Your task to perform on an android device: empty trash in google photos Image 0: 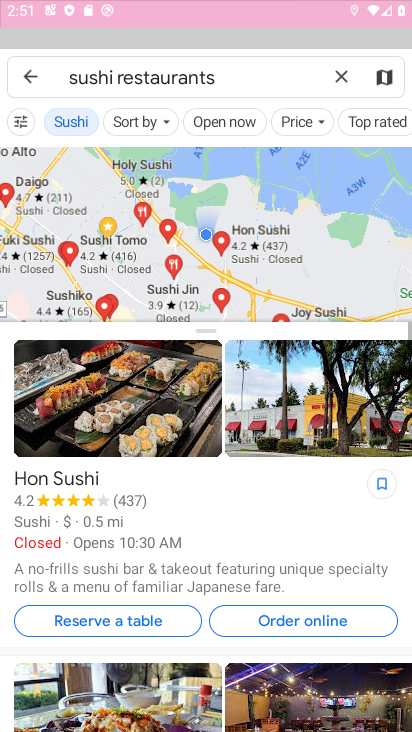
Step 0: click (217, 358)
Your task to perform on an android device: empty trash in google photos Image 1: 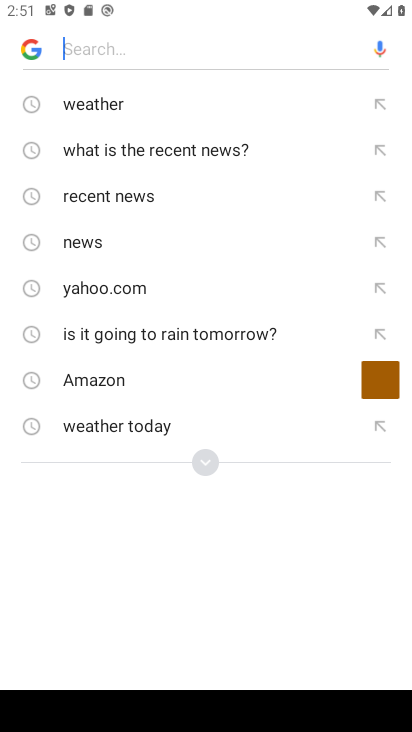
Step 1: press home button
Your task to perform on an android device: empty trash in google photos Image 2: 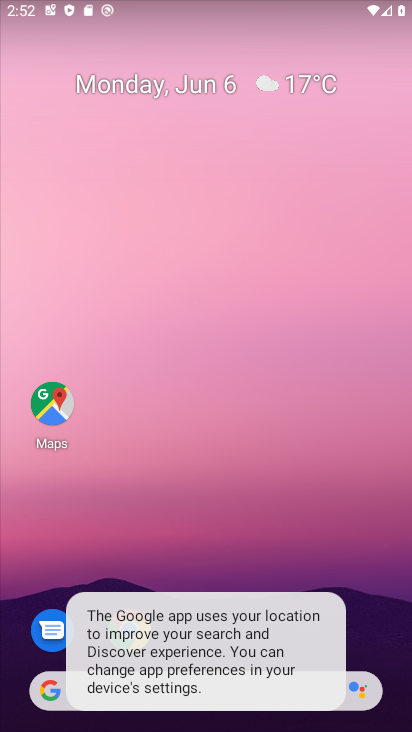
Step 2: drag from (262, 548) to (262, 244)
Your task to perform on an android device: empty trash in google photos Image 3: 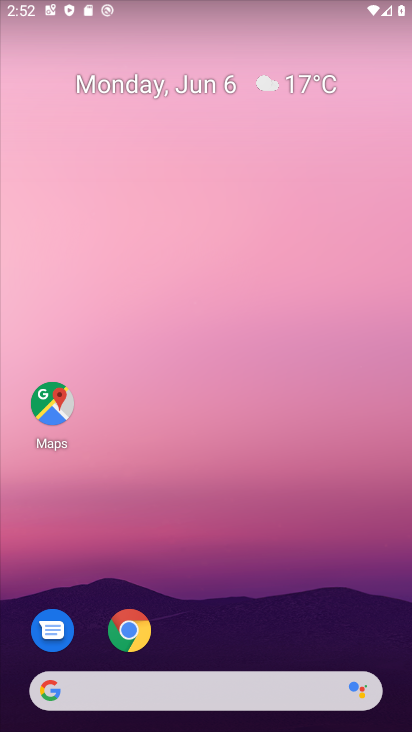
Step 3: drag from (227, 634) to (238, 261)
Your task to perform on an android device: empty trash in google photos Image 4: 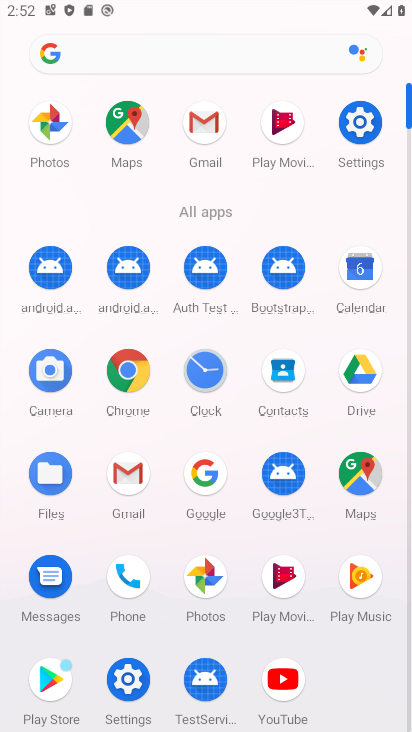
Step 4: click (194, 564)
Your task to perform on an android device: empty trash in google photos Image 5: 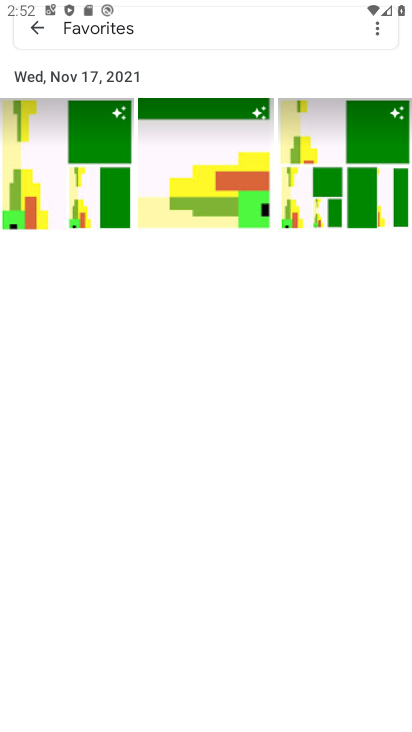
Step 5: click (42, 25)
Your task to perform on an android device: empty trash in google photos Image 6: 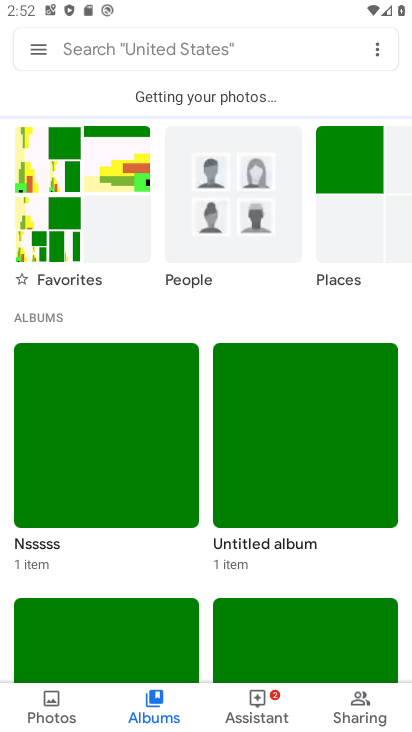
Step 6: click (36, 51)
Your task to perform on an android device: empty trash in google photos Image 7: 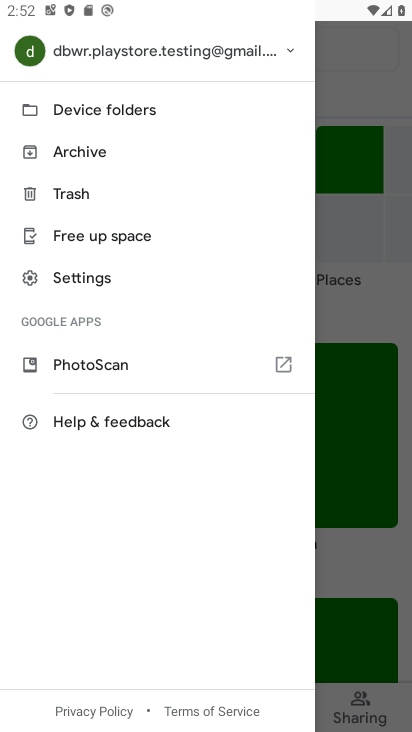
Step 7: click (79, 192)
Your task to perform on an android device: empty trash in google photos Image 8: 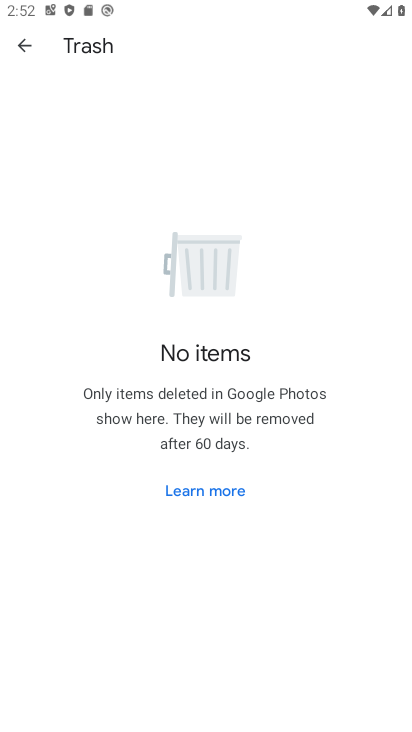
Step 8: task complete